Your task to perform on an android device: turn on bluetooth scan Image 0: 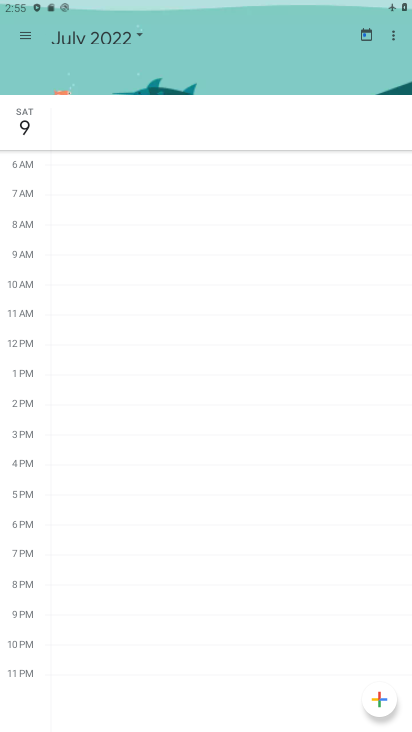
Step 0: press home button
Your task to perform on an android device: turn on bluetooth scan Image 1: 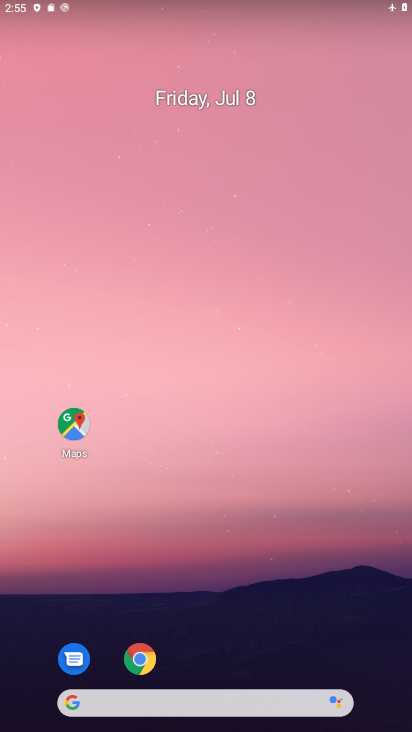
Step 1: drag from (250, 515) to (296, 111)
Your task to perform on an android device: turn on bluetooth scan Image 2: 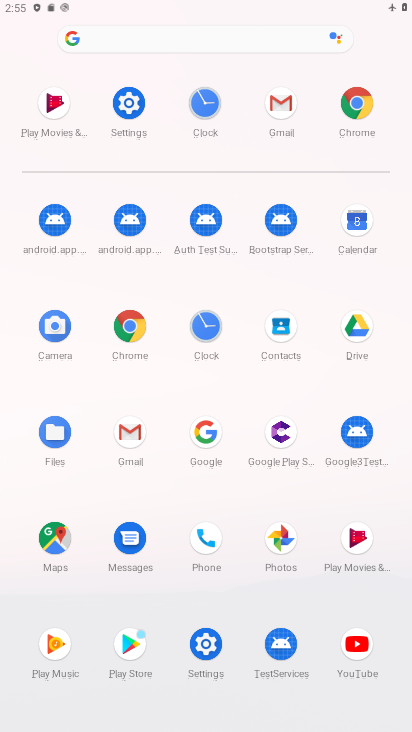
Step 2: click (198, 650)
Your task to perform on an android device: turn on bluetooth scan Image 3: 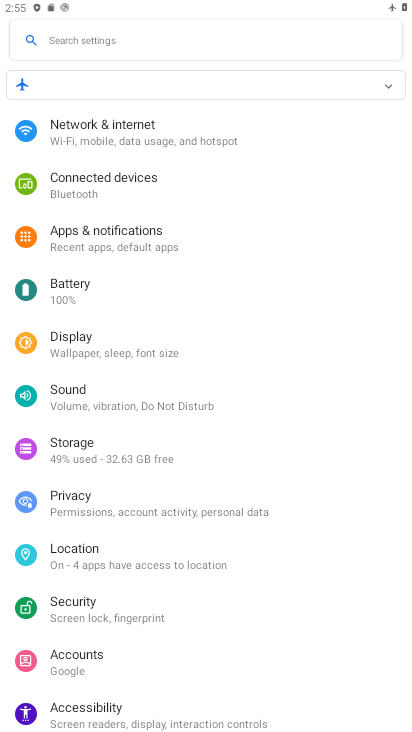
Step 3: drag from (204, 612) to (225, 429)
Your task to perform on an android device: turn on bluetooth scan Image 4: 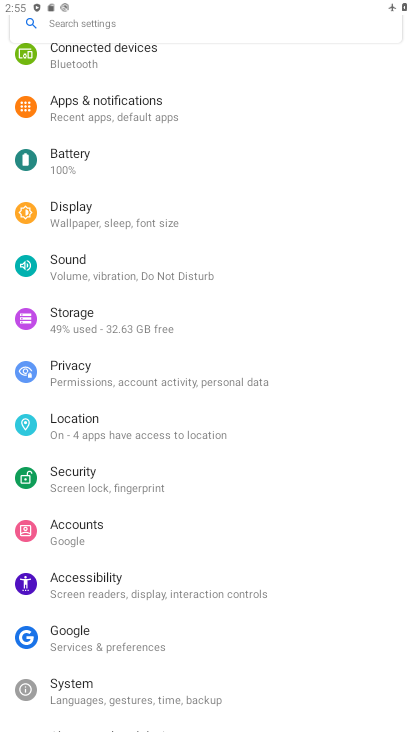
Step 4: click (148, 434)
Your task to perform on an android device: turn on bluetooth scan Image 5: 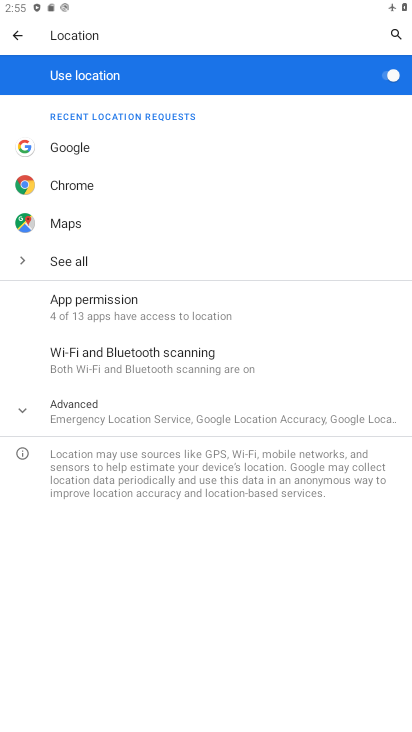
Step 5: click (179, 419)
Your task to perform on an android device: turn on bluetooth scan Image 6: 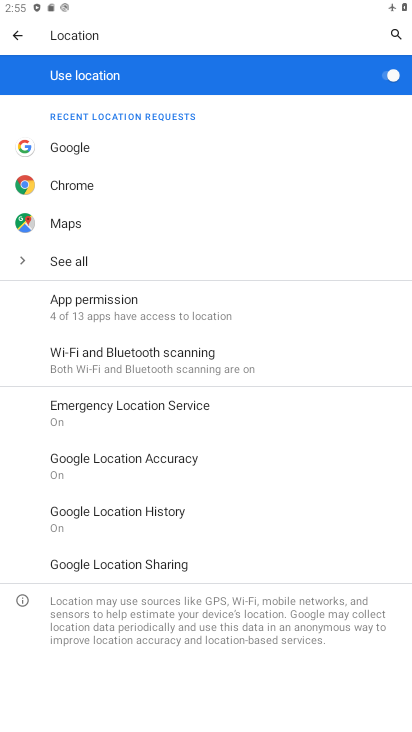
Step 6: click (181, 360)
Your task to perform on an android device: turn on bluetooth scan Image 7: 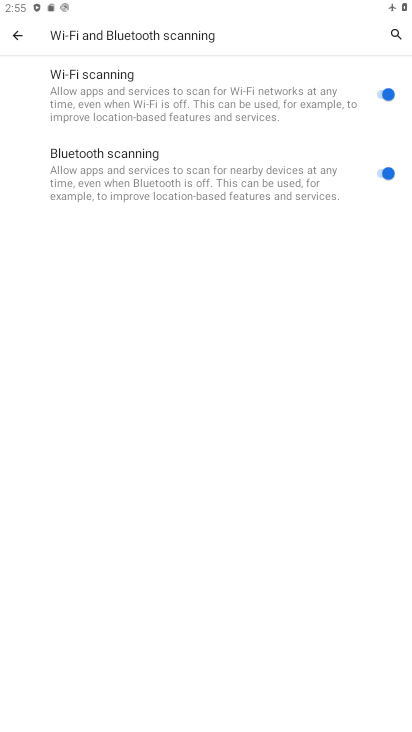
Step 7: task complete